Your task to perform on an android device: Check the weather Image 0: 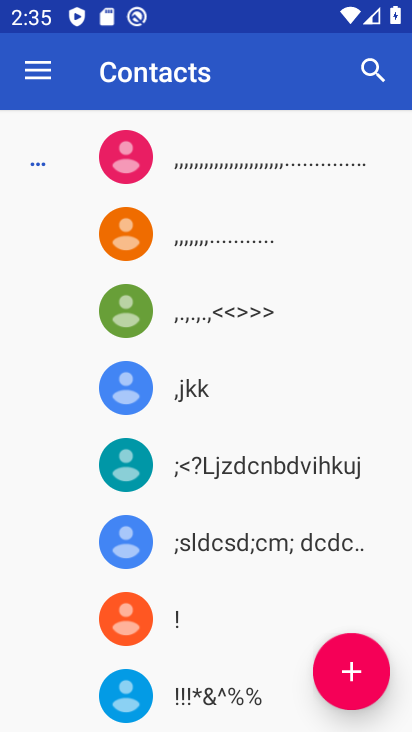
Step 0: press home button
Your task to perform on an android device: Check the weather Image 1: 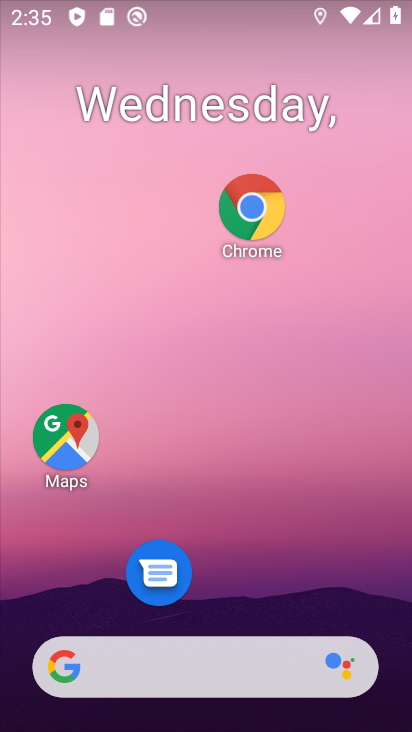
Step 1: drag from (300, 494) to (279, 4)
Your task to perform on an android device: Check the weather Image 2: 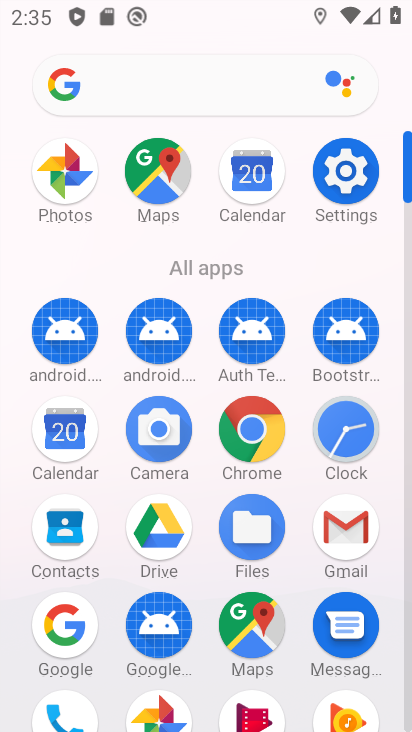
Step 2: click (76, 630)
Your task to perform on an android device: Check the weather Image 3: 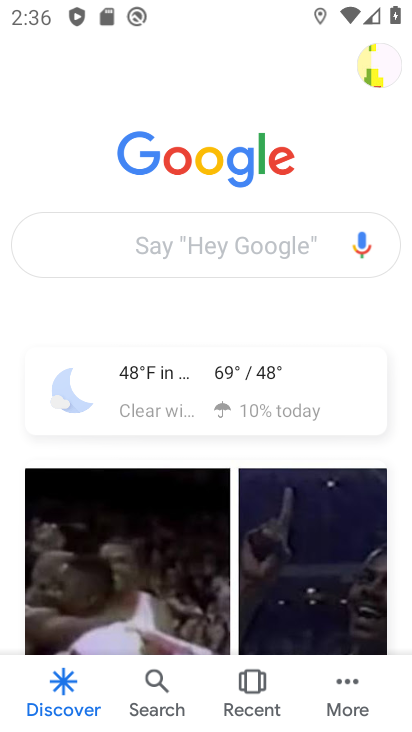
Step 3: click (211, 241)
Your task to perform on an android device: Check the weather Image 4: 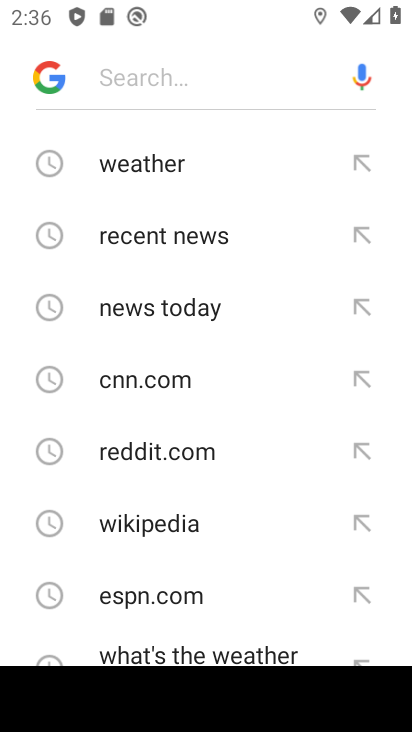
Step 4: click (177, 170)
Your task to perform on an android device: Check the weather Image 5: 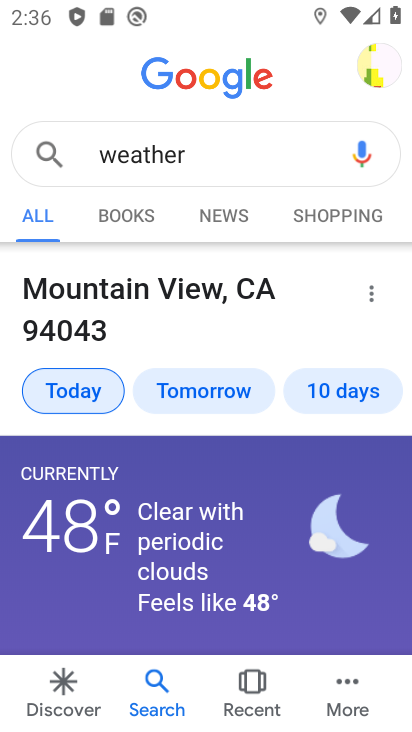
Step 5: task complete